Your task to perform on an android device: turn off javascript in the chrome app Image 0: 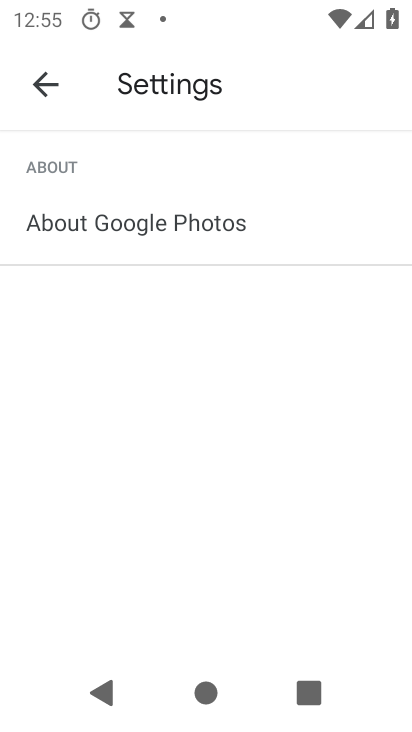
Step 0: press home button
Your task to perform on an android device: turn off javascript in the chrome app Image 1: 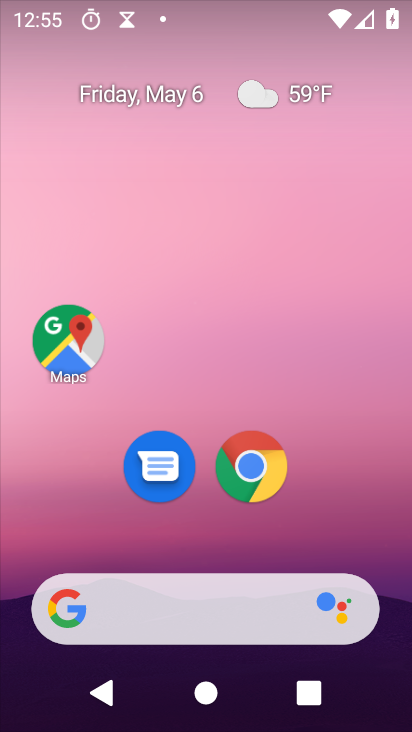
Step 1: drag from (383, 564) to (303, 179)
Your task to perform on an android device: turn off javascript in the chrome app Image 2: 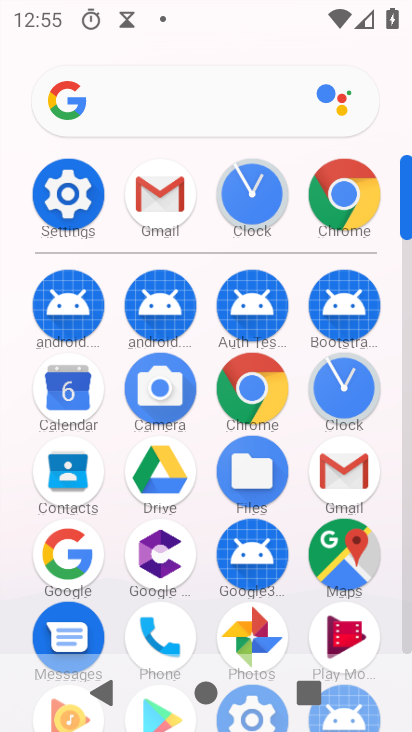
Step 2: click (342, 206)
Your task to perform on an android device: turn off javascript in the chrome app Image 3: 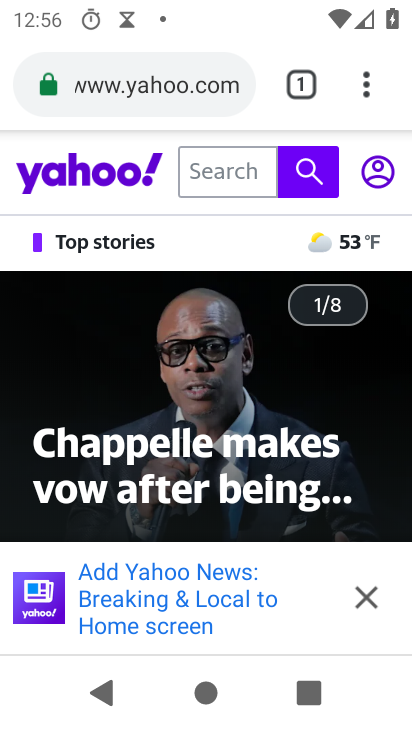
Step 3: drag from (369, 70) to (216, 520)
Your task to perform on an android device: turn off javascript in the chrome app Image 4: 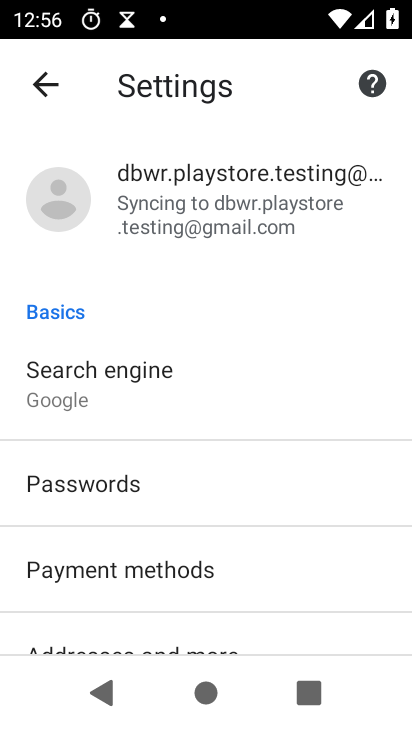
Step 4: drag from (274, 626) to (238, 185)
Your task to perform on an android device: turn off javascript in the chrome app Image 5: 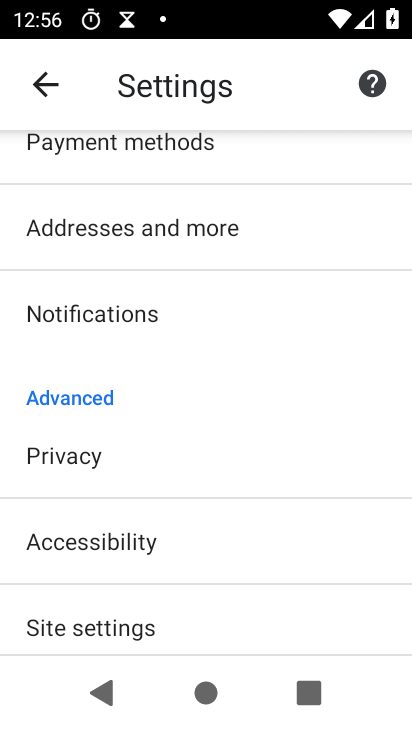
Step 5: click (292, 638)
Your task to perform on an android device: turn off javascript in the chrome app Image 6: 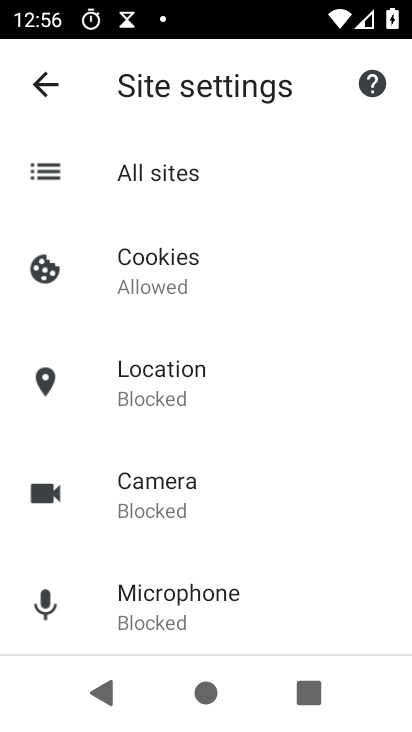
Step 6: drag from (292, 638) to (257, 394)
Your task to perform on an android device: turn off javascript in the chrome app Image 7: 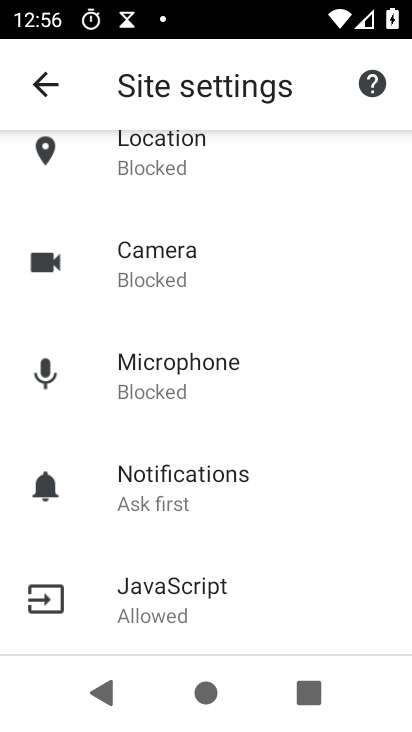
Step 7: click (271, 583)
Your task to perform on an android device: turn off javascript in the chrome app Image 8: 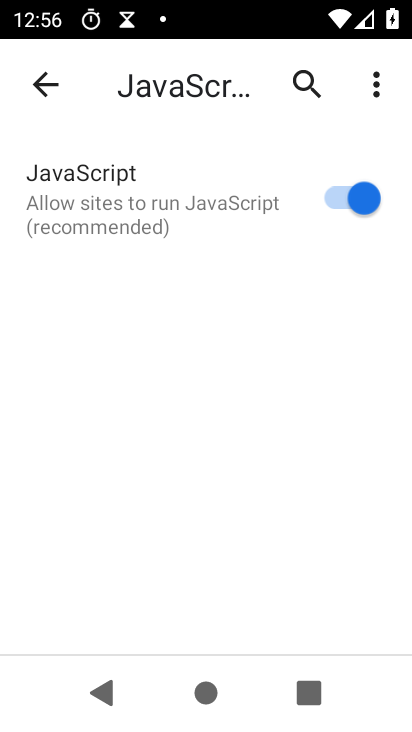
Step 8: click (346, 195)
Your task to perform on an android device: turn off javascript in the chrome app Image 9: 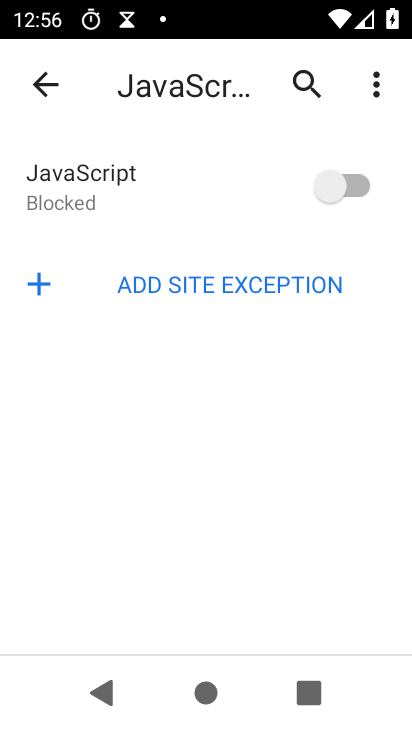
Step 9: task complete